Your task to perform on an android device: set an alarm Image 0: 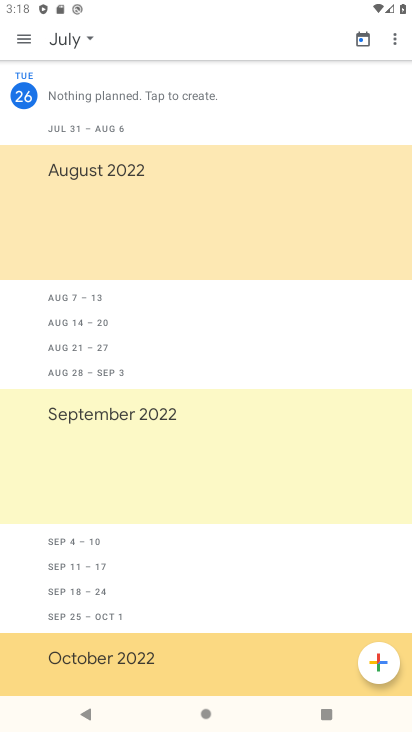
Step 0: press home button
Your task to perform on an android device: set an alarm Image 1: 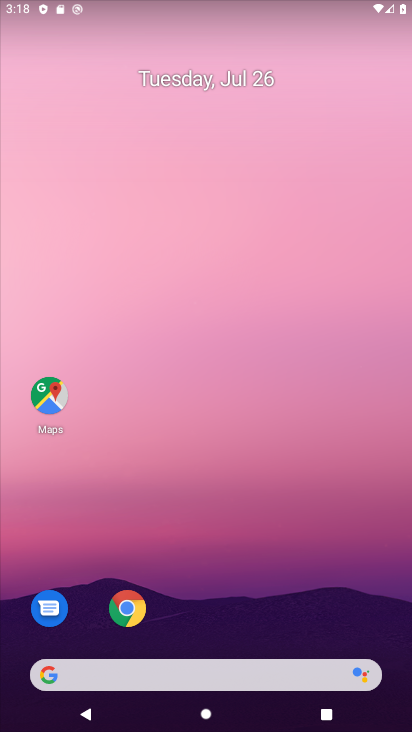
Step 1: drag from (371, 652) to (309, 79)
Your task to perform on an android device: set an alarm Image 2: 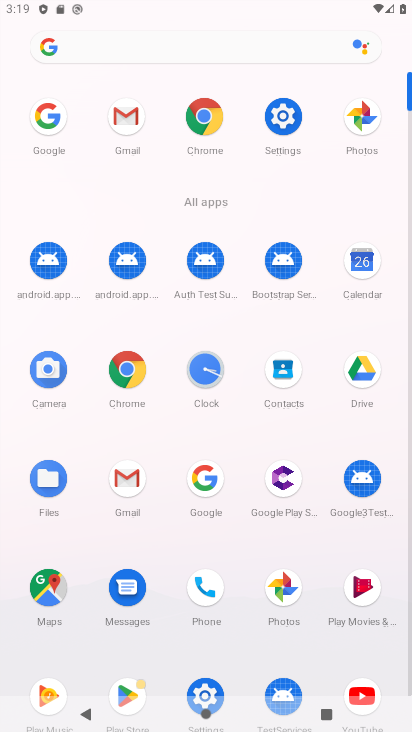
Step 2: click (207, 366)
Your task to perform on an android device: set an alarm Image 3: 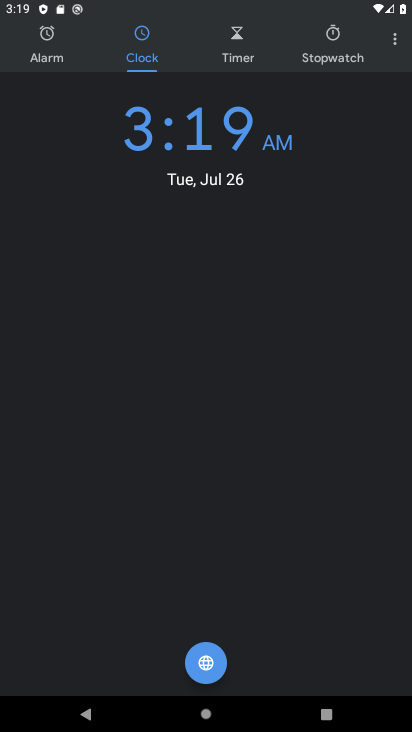
Step 3: click (53, 55)
Your task to perform on an android device: set an alarm Image 4: 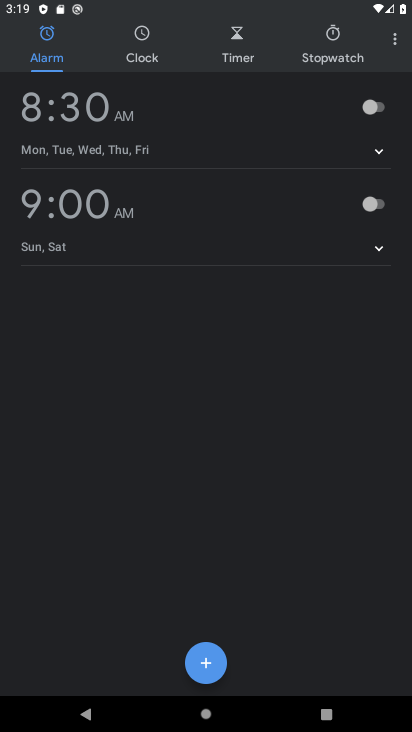
Step 4: click (380, 110)
Your task to perform on an android device: set an alarm Image 5: 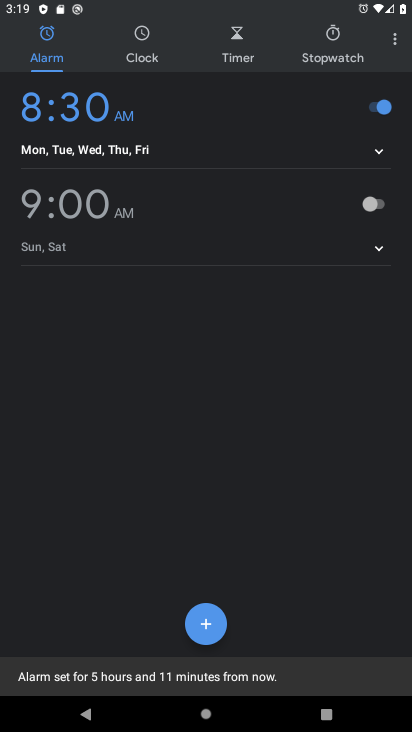
Step 5: task complete